Your task to perform on an android device: toggle improve location accuracy Image 0: 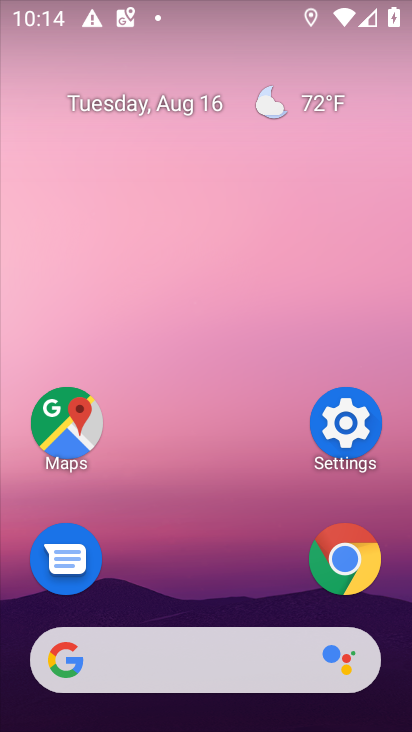
Step 0: click (340, 425)
Your task to perform on an android device: toggle improve location accuracy Image 1: 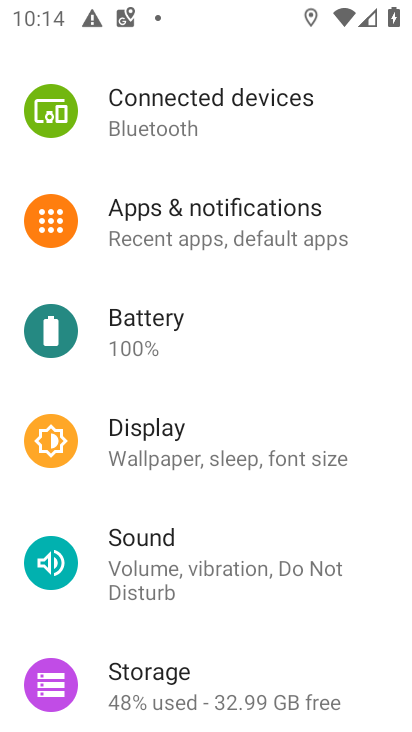
Step 1: drag from (277, 337) to (1, 393)
Your task to perform on an android device: toggle improve location accuracy Image 2: 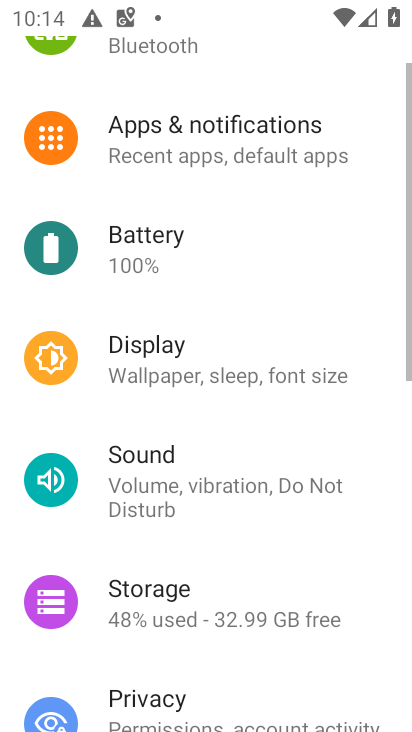
Step 2: drag from (239, 518) to (362, 100)
Your task to perform on an android device: toggle improve location accuracy Image 3: 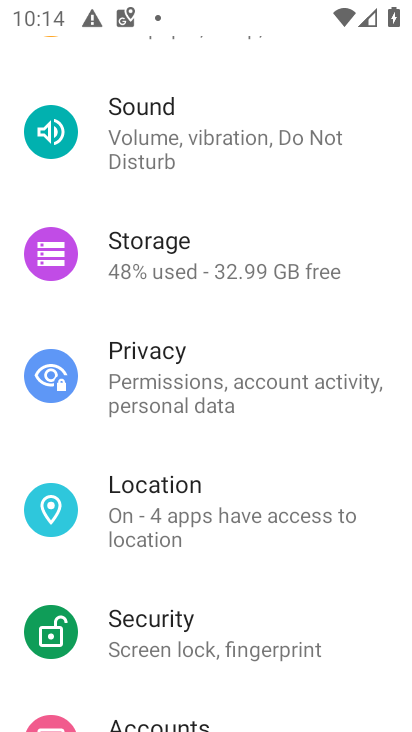
Step 3: click (149, 518)
Your task to perform on an android device: toggle improve location accuracy Image 4: 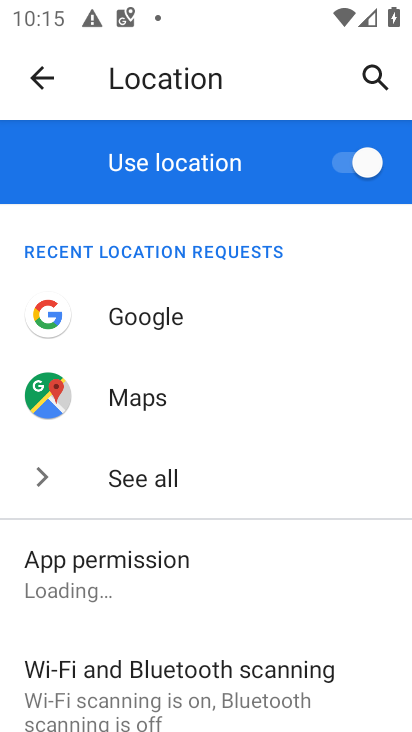
Step 4: drag from (196, 637) to (351, 326)
Your task to perform on an android device: toggle improve location accuracy Image 5: 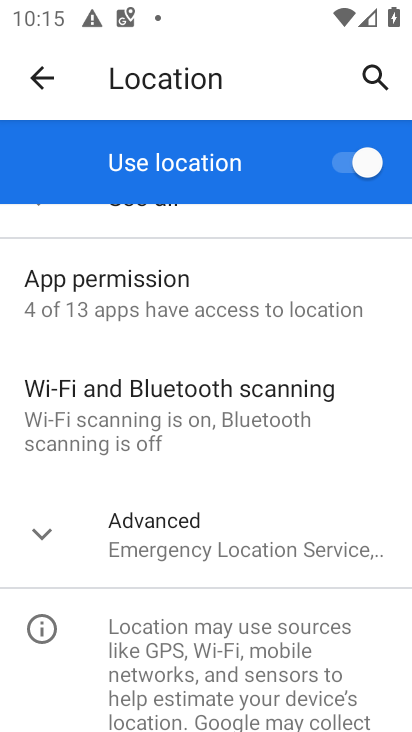
Step 5: click (167, 526)
Your task to perform on an android device: toggle improve location accuracy Image 6: 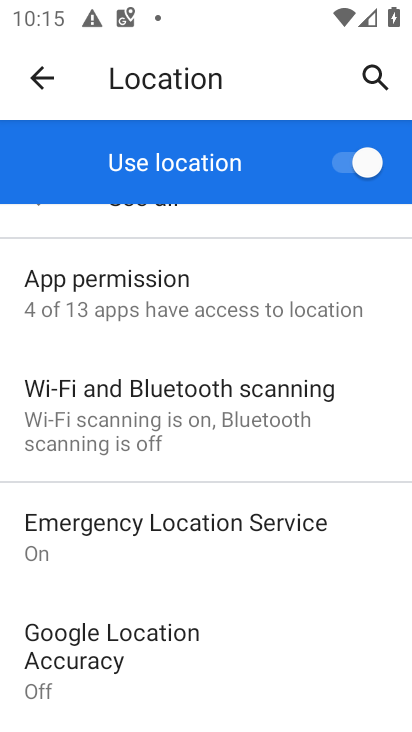
Step 6: drag from (191, 620) to (318, 332)
Your task to perform on an android device: toggle improve location accuracy Image 7: 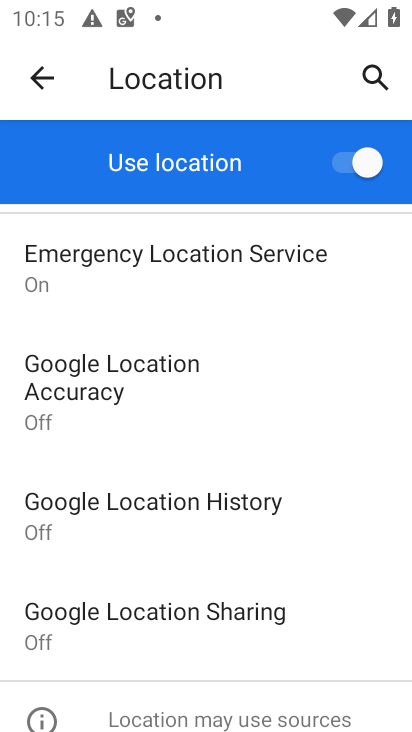
Step 7: click (106, 400)
Your task to perform on an android device: toggle improve location accuracy Image 8: 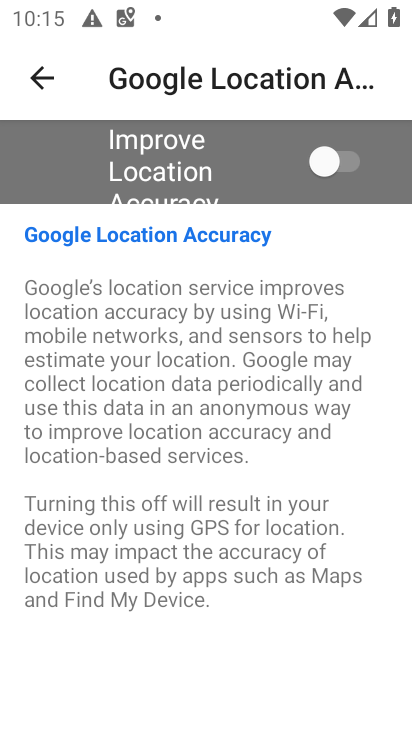
Step 8: click (339, 161)
Your task to perform on an android device: toggle improve location accuracy Image 9: 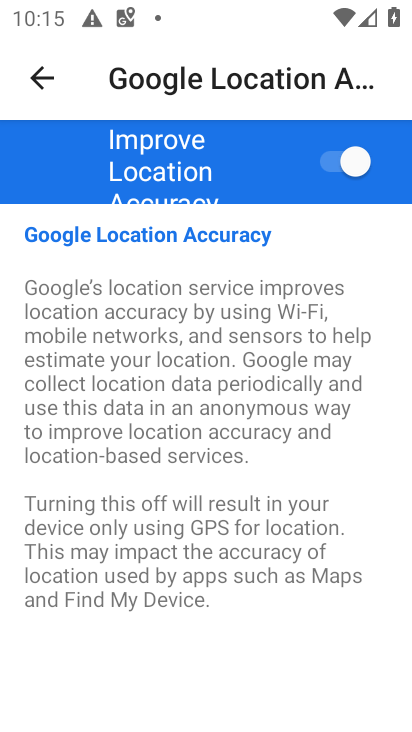
Step 9: task complete